Your task to perform on an android device: Find coffee shops on Maps Image 0: 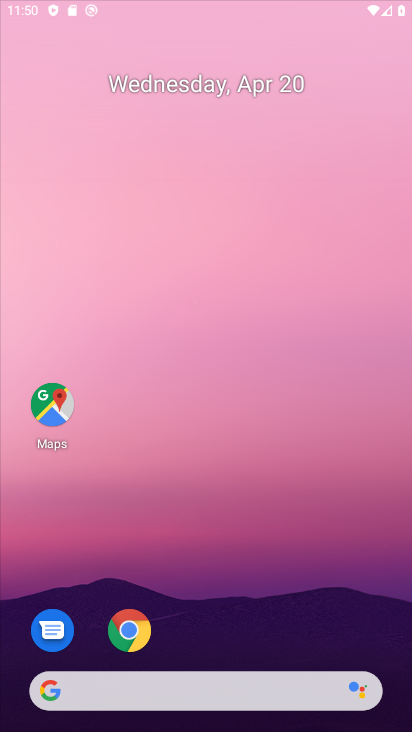
Step 0: drag from (310, 64) to (366, 66)
Your task to perform on an android device: Find coffee shops on Maps Image 1: 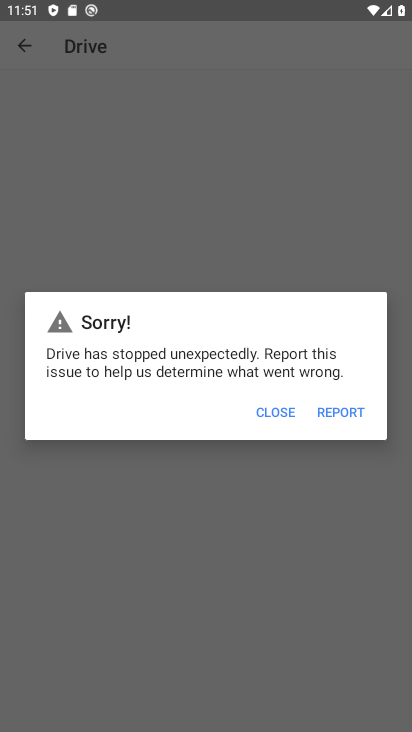
Step 1: press home button
Your task to perform on an android device: Find coffee shops on Maps Image 2: 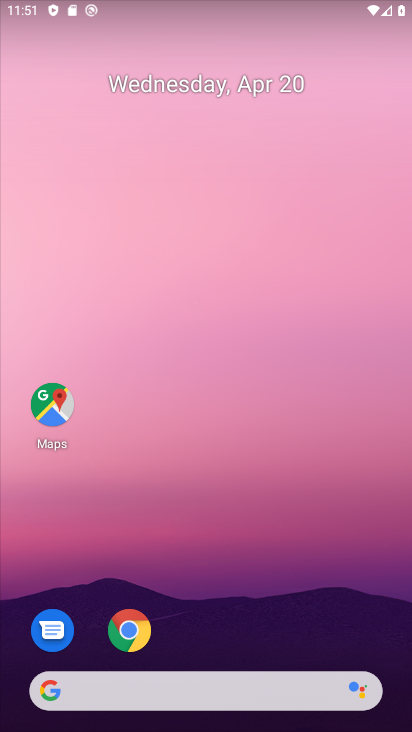
Step 2: drag from (313, 543) to (386, 80)
Your task to perform on an android device: Find coffee shops on Maps Image 3: 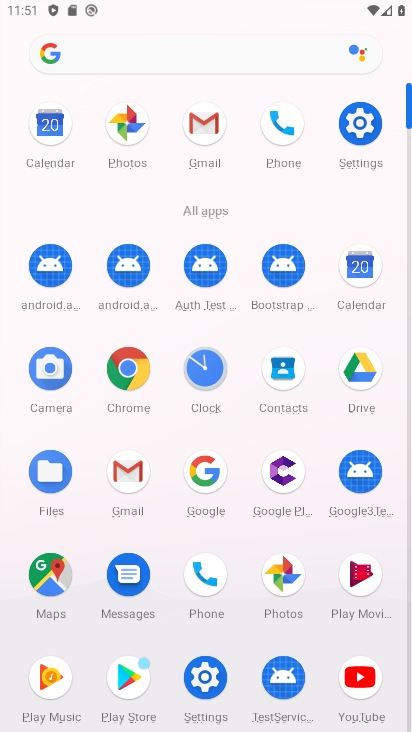
Step 3: click (141, 380)
Your task to perform on an android device: Find coffee shops on Maps Image 4: 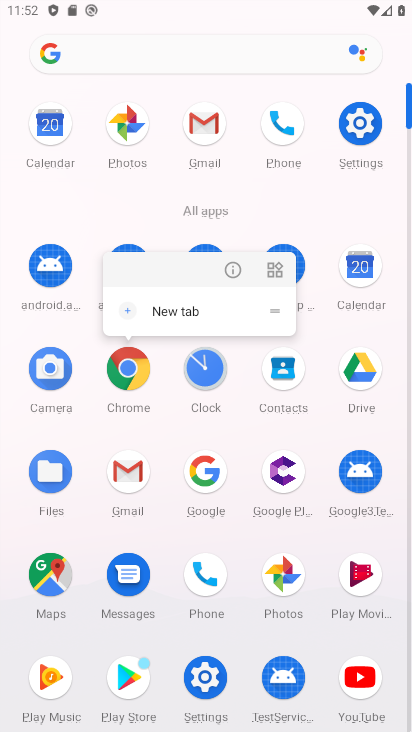
Step 4: click (48, 577)
Your task to perform on an android device: Find coffee shops on Maps Image 5: 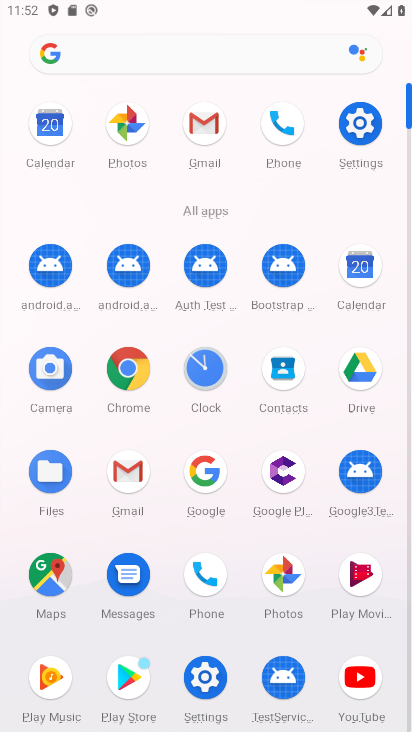
Step 5: click (48, 577)
Your task to perform on an android device: Find coffee shops on Maps Image 6: 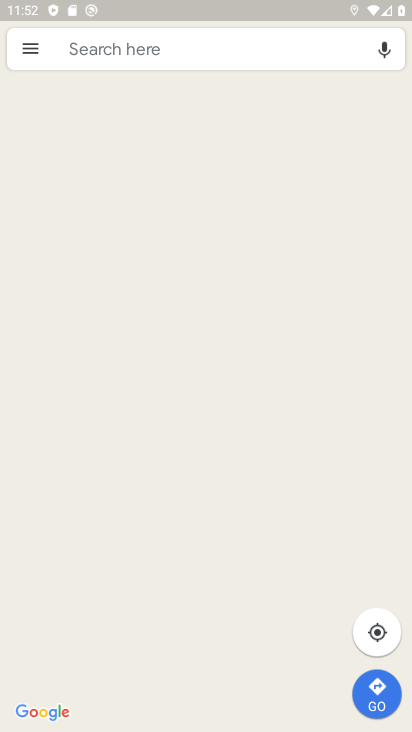
Step 6: click (176, 54)
Your task to perform on an android device: Find coffee shops on Maps Image 7: 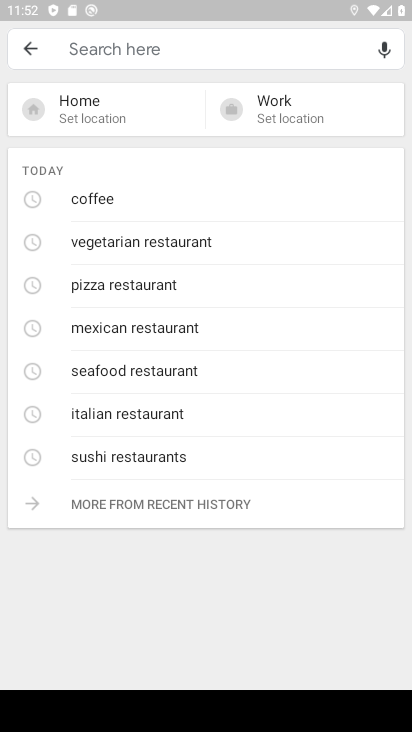
Step 7: click (64, 194)
Your task to perform on an android device: Find coffee shops on Maps Image 8: 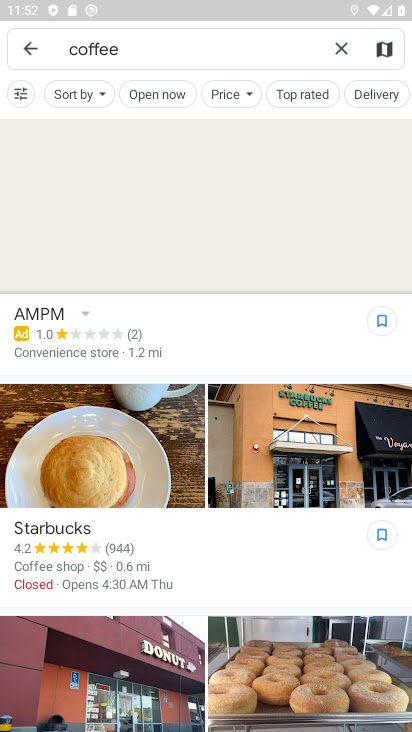
Step 8: task complete